Your task to perform on an android device: Go to Amazon Image 0: 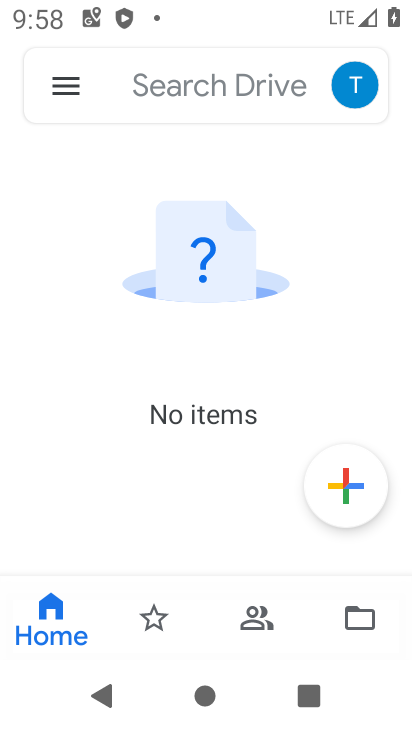
Step 0: press home button
Your task to perform on an android device: Go to Amazon Image 1: 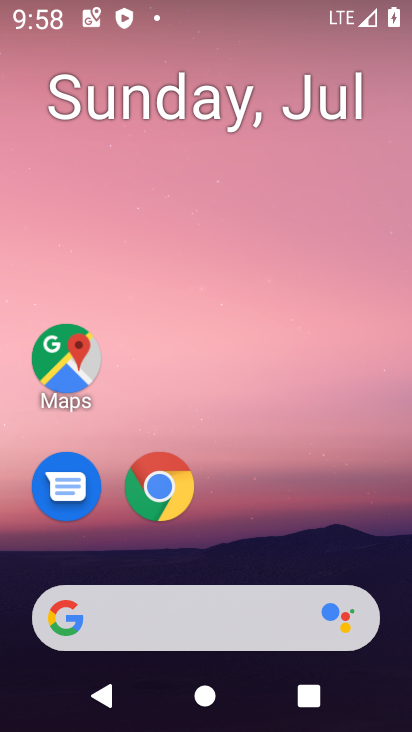
Step 1: drag from (305, 489) to (363, 84)
Your task to perform on an android device: Go to Amazon Image 2: 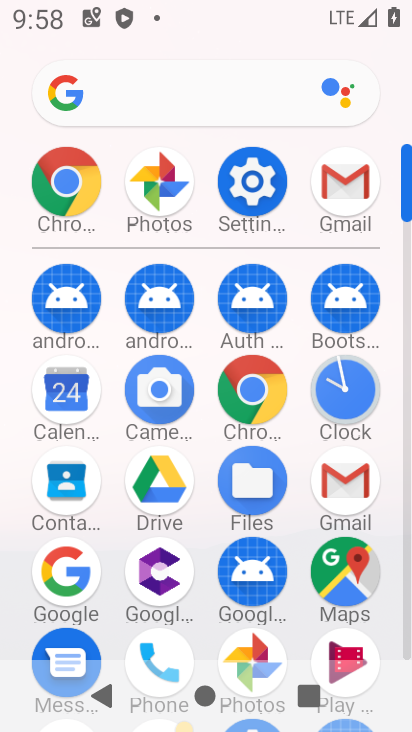
Step 2: click (261, 403)
Your task to perform on an android device: Go to Amazon Image 3: 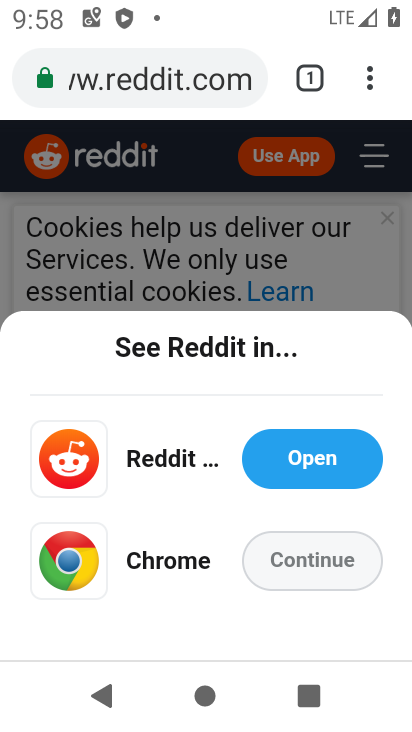
Step 3: click (220, 71)
Your task to perform on an android device: Go to Amazon Image 4: 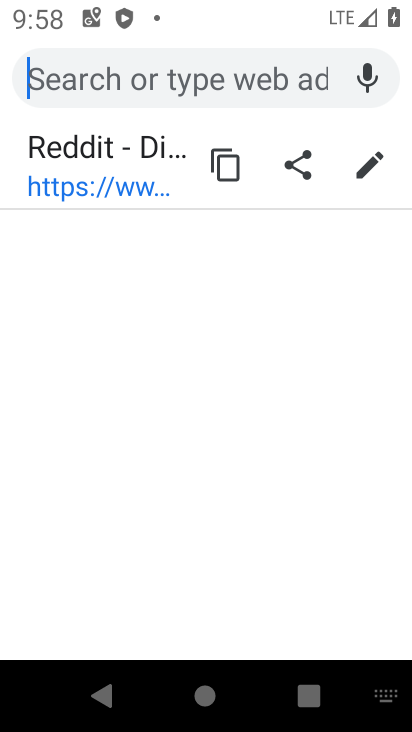
Step 4: type "amazon"
Your task to perform on an android device: Go to Amazon Image 5: 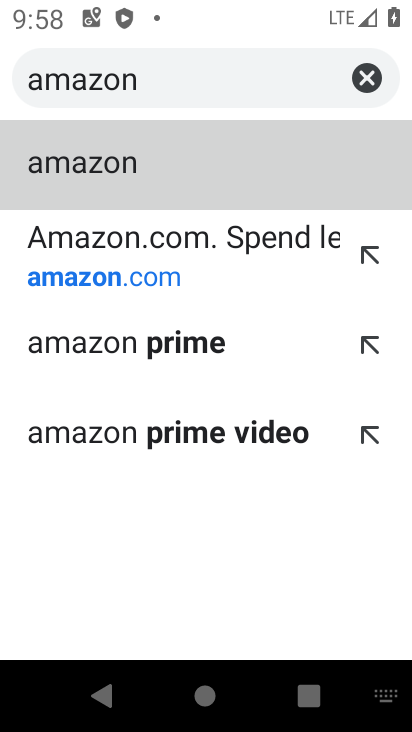
Step 5: click (190, 172)
Your task to perform on an android device: Go to Amazon Image 6: 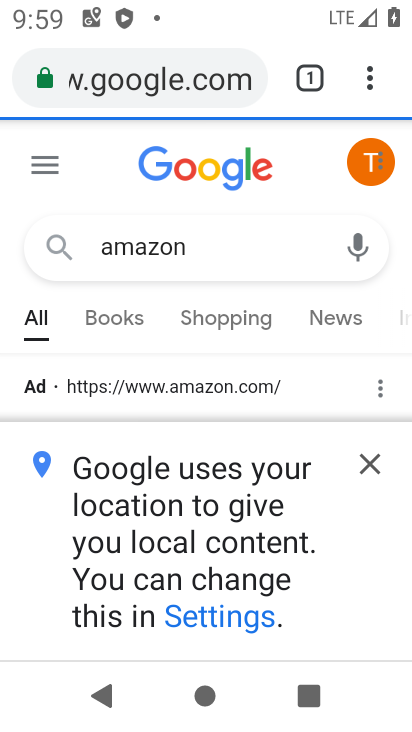
Step 6: task complete